Your task to perform on an android device: turn off notifications settings in the gmail app Image 0: 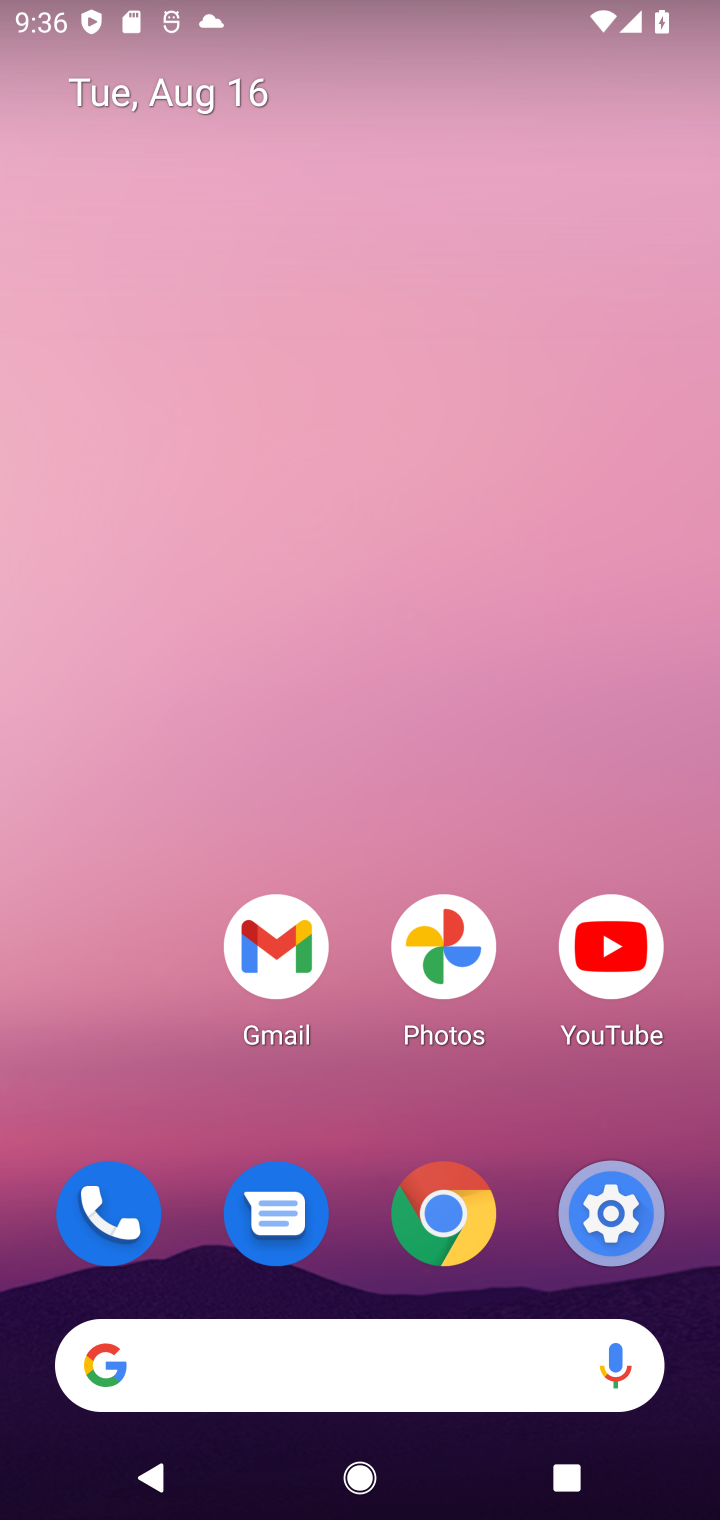
Step 0: drag from (332, 1108) to (404, 256)
Your task to perform on an android device: turn off notifications settings in the gmail app Image 1: 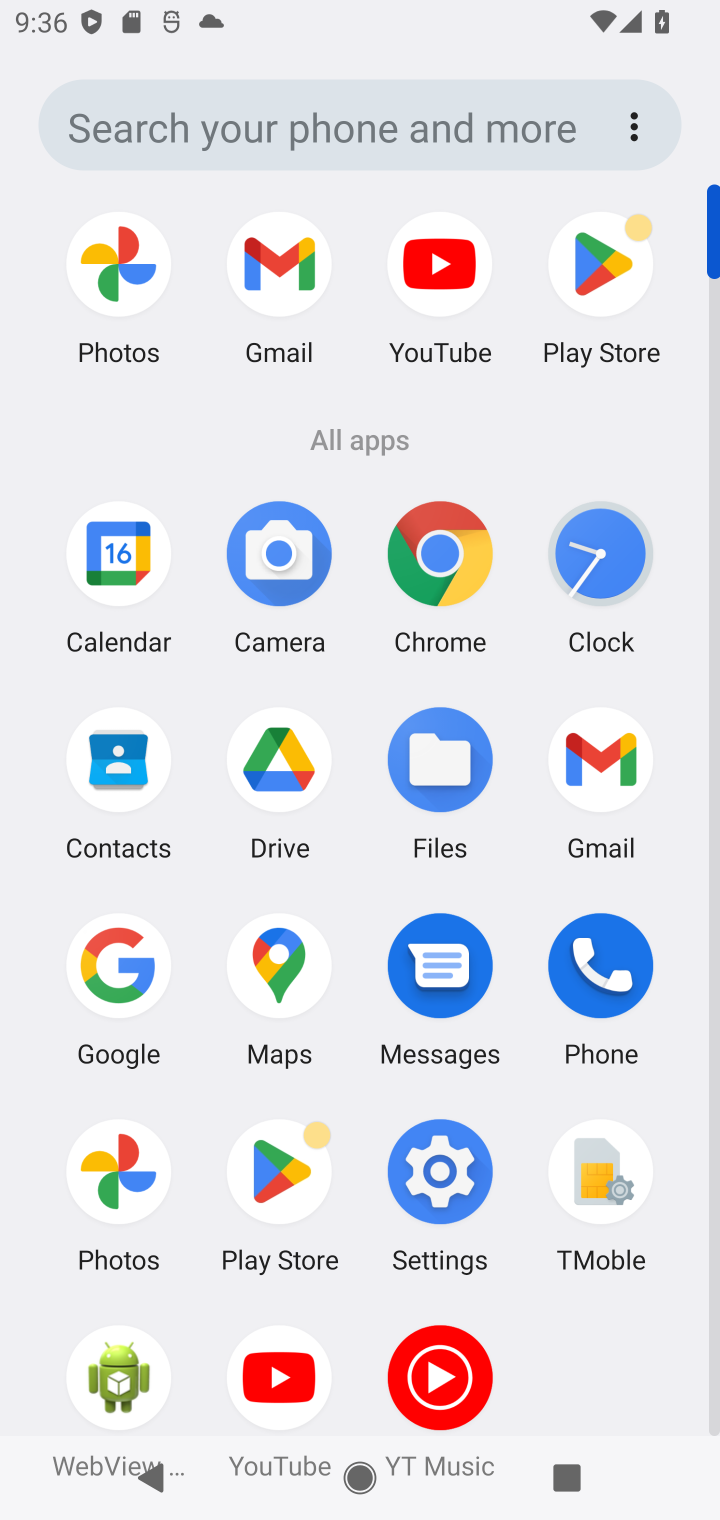
Step 1: click (584, 751)
Your task to perform on an android device: turn off notifications settings in the gmail app Image 2: 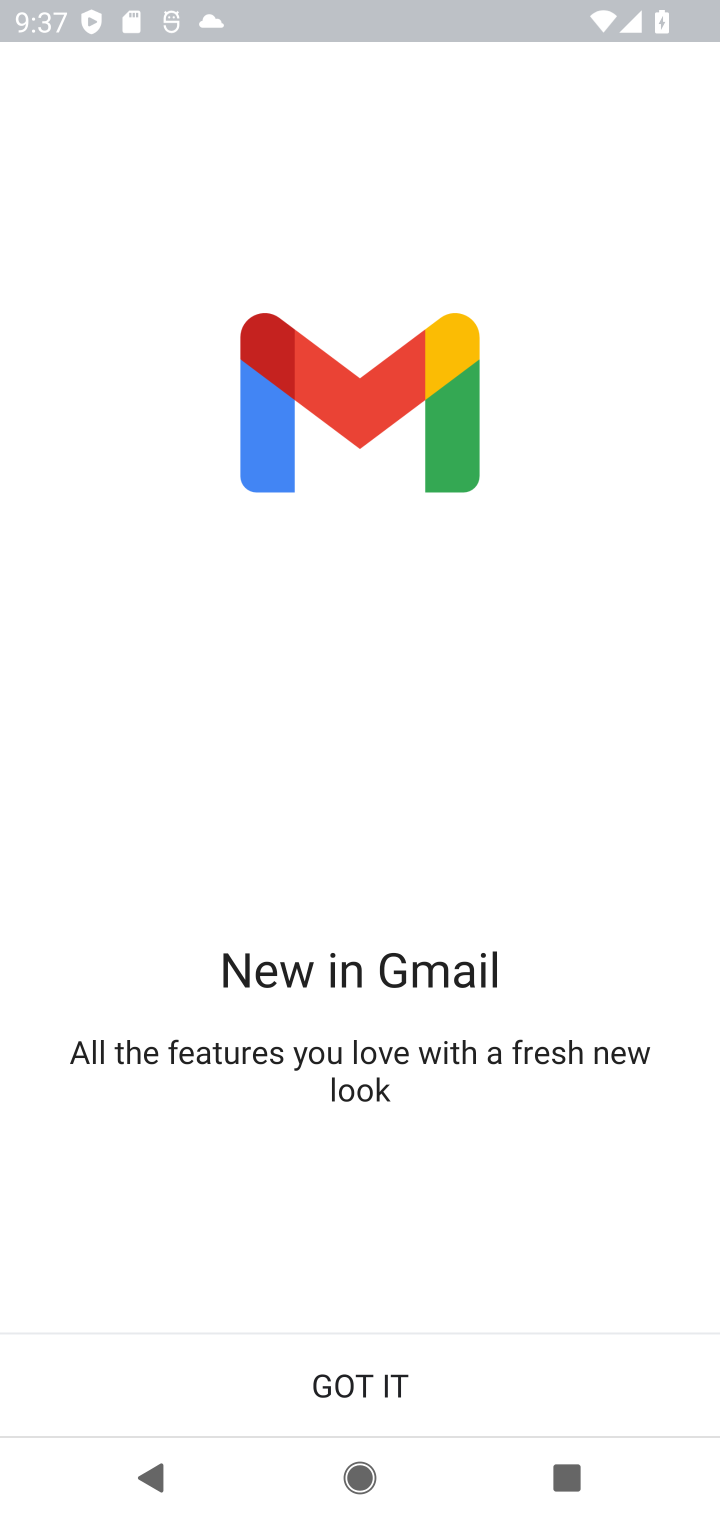
Step 2: click (380, 1375)
Your task to perform on an android device: turn off notifications settings in the gmail app Image 3: 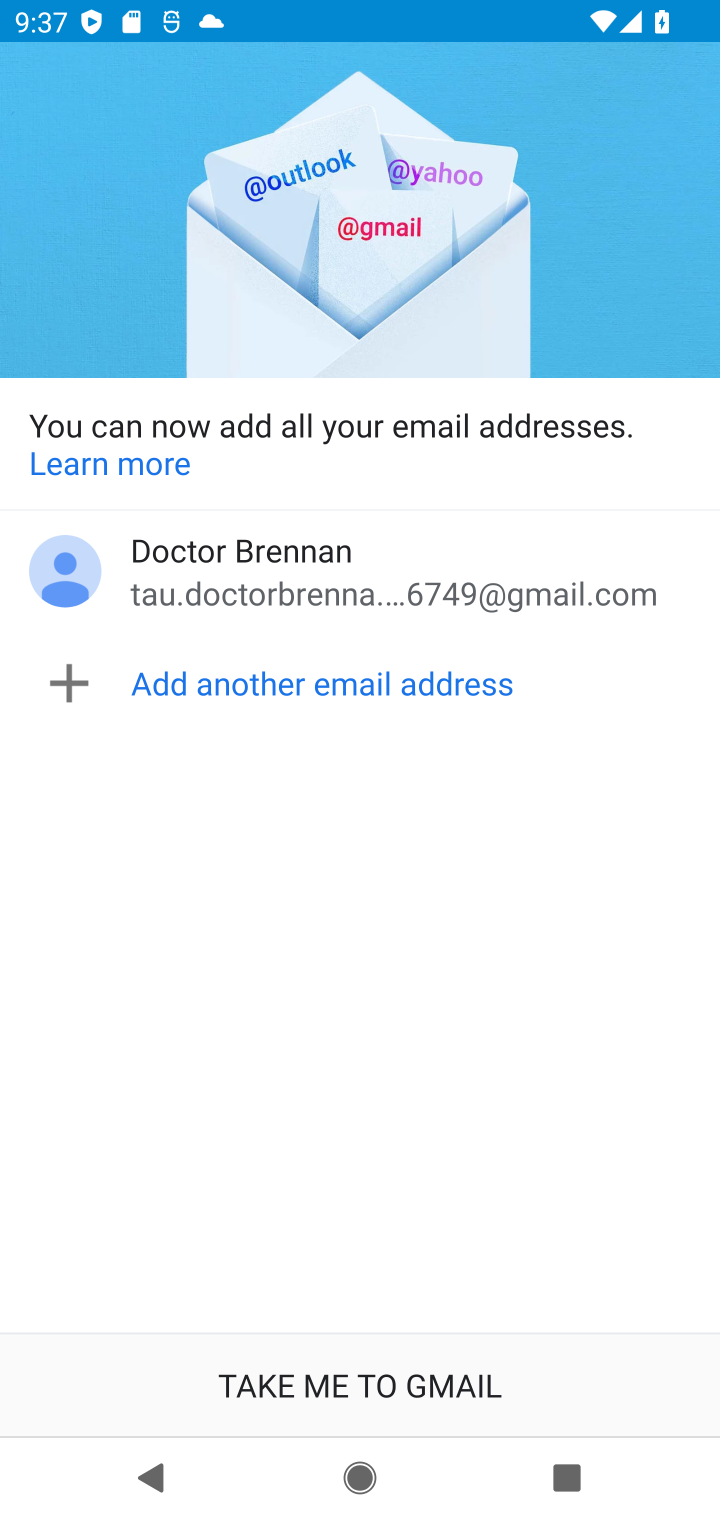
Step 3: click (380, 1375)
Your task to perform on an android device: turn off notifications settings in the gmail app Image 4: 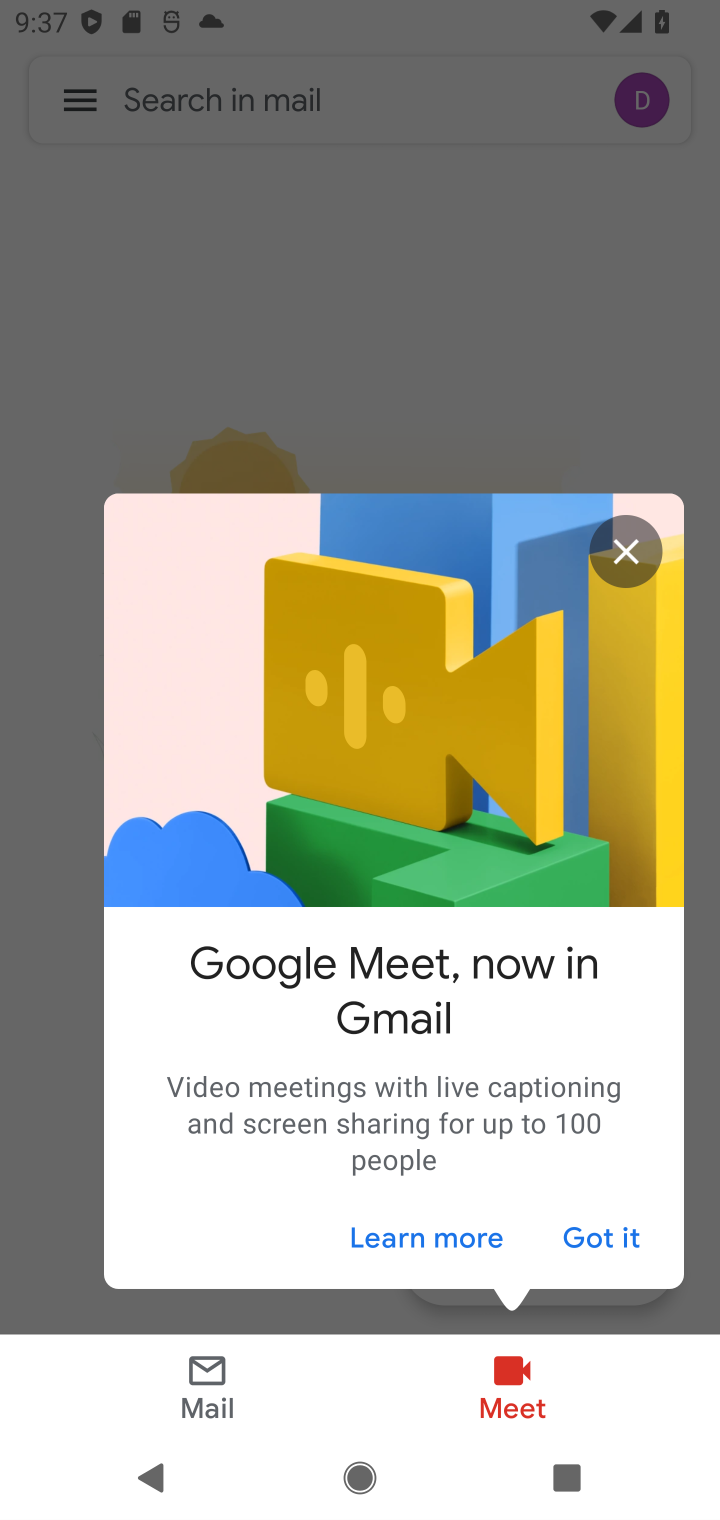
Step 4: click (597, 1216)
Your task to perform on an android device: turn off notifications settings in the gmail app Image 5: 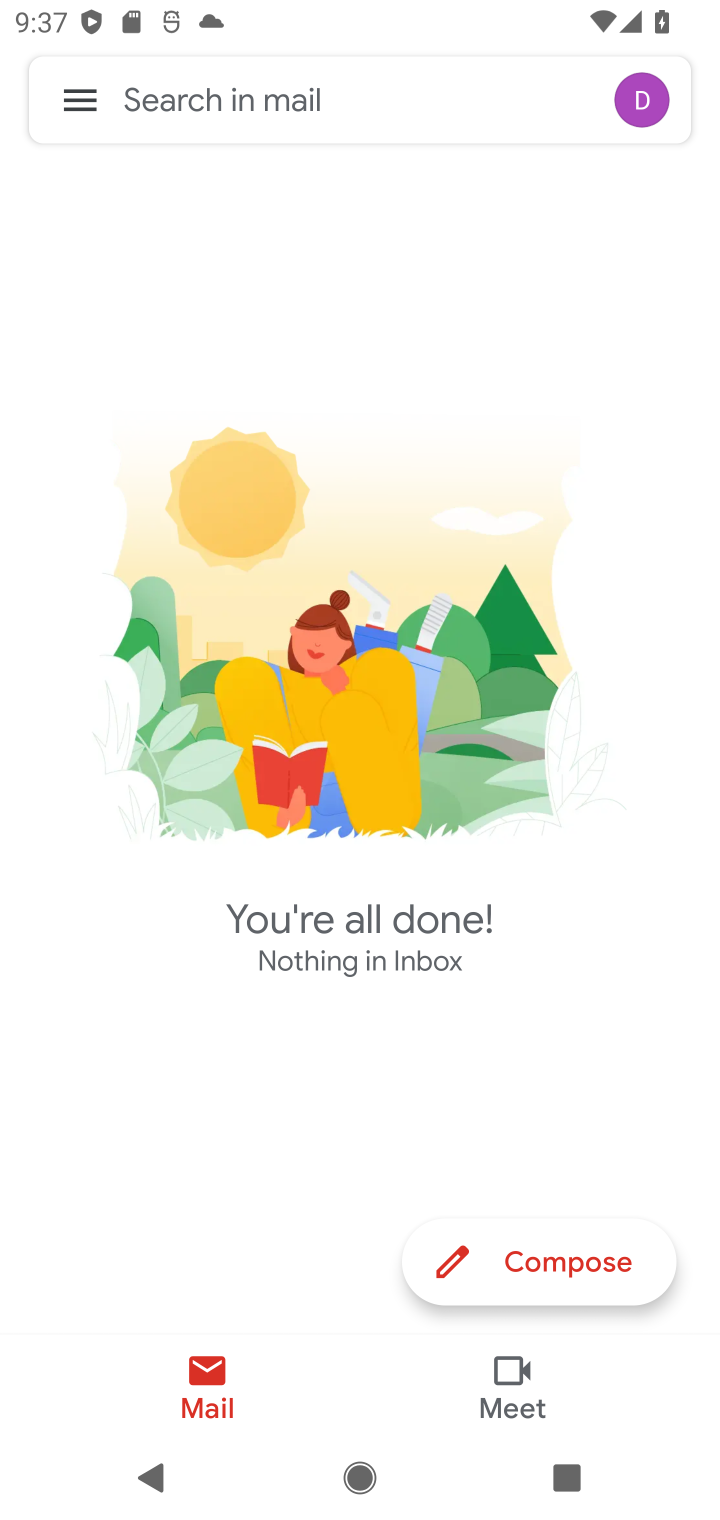
Step 5: click (74, 86)
Your task to perform on an android device: turn off notifications settings in the gmail app Image 6: 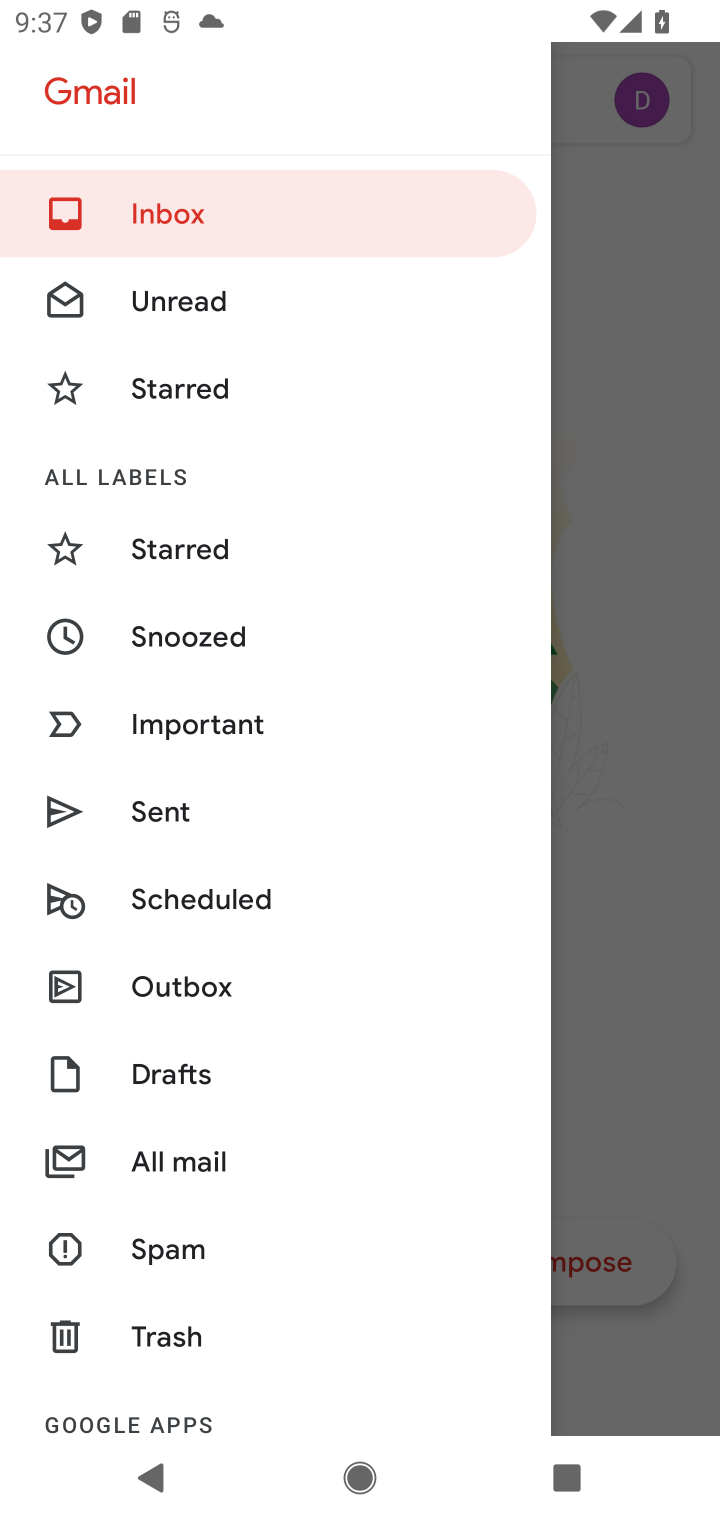
Step 6: drag from (237, 1247) to (340, 533)
Your task to perform on an android device: turn off notifications settings in the gmail app Image 7: 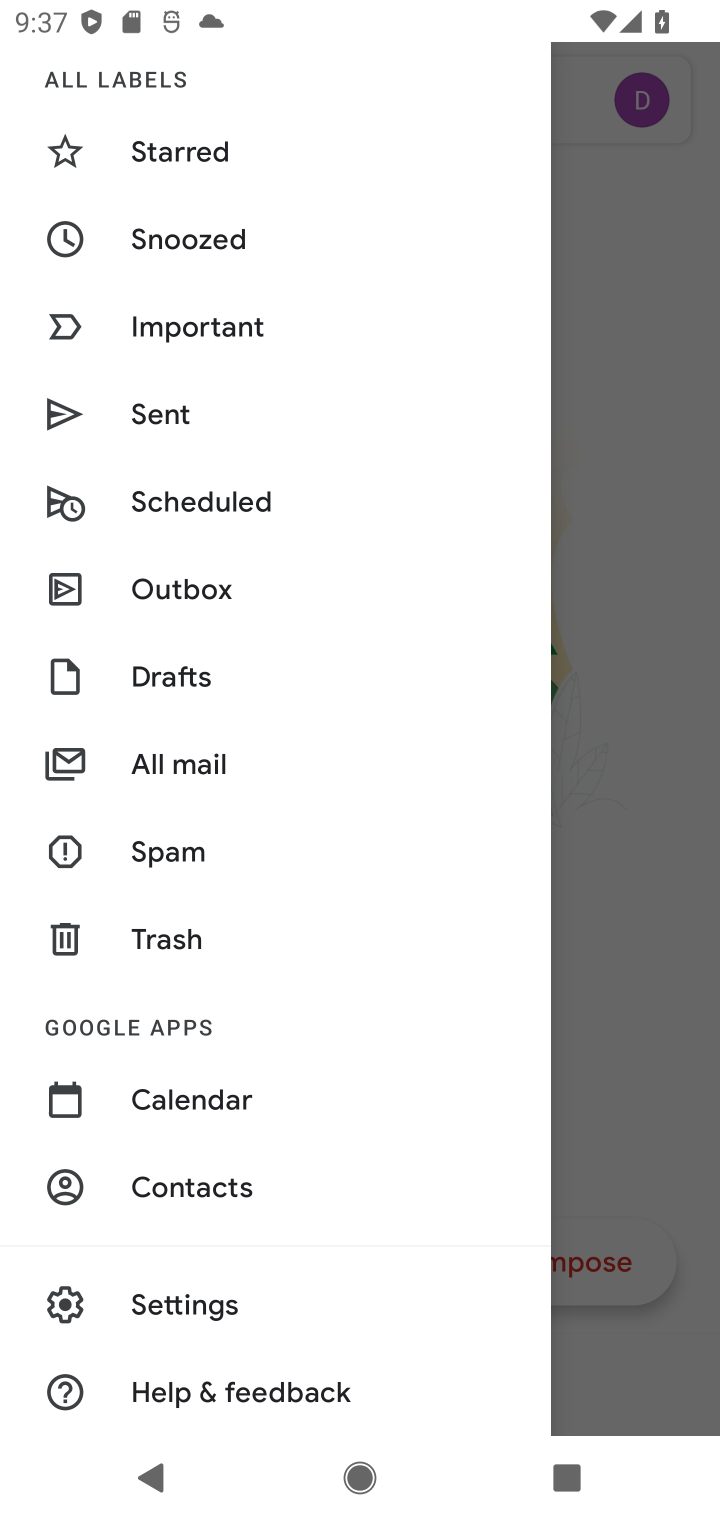
Step 7: click (204, 1288)
Your task to perform on an android device: turn off notifications settings in the gmail app Image 8: 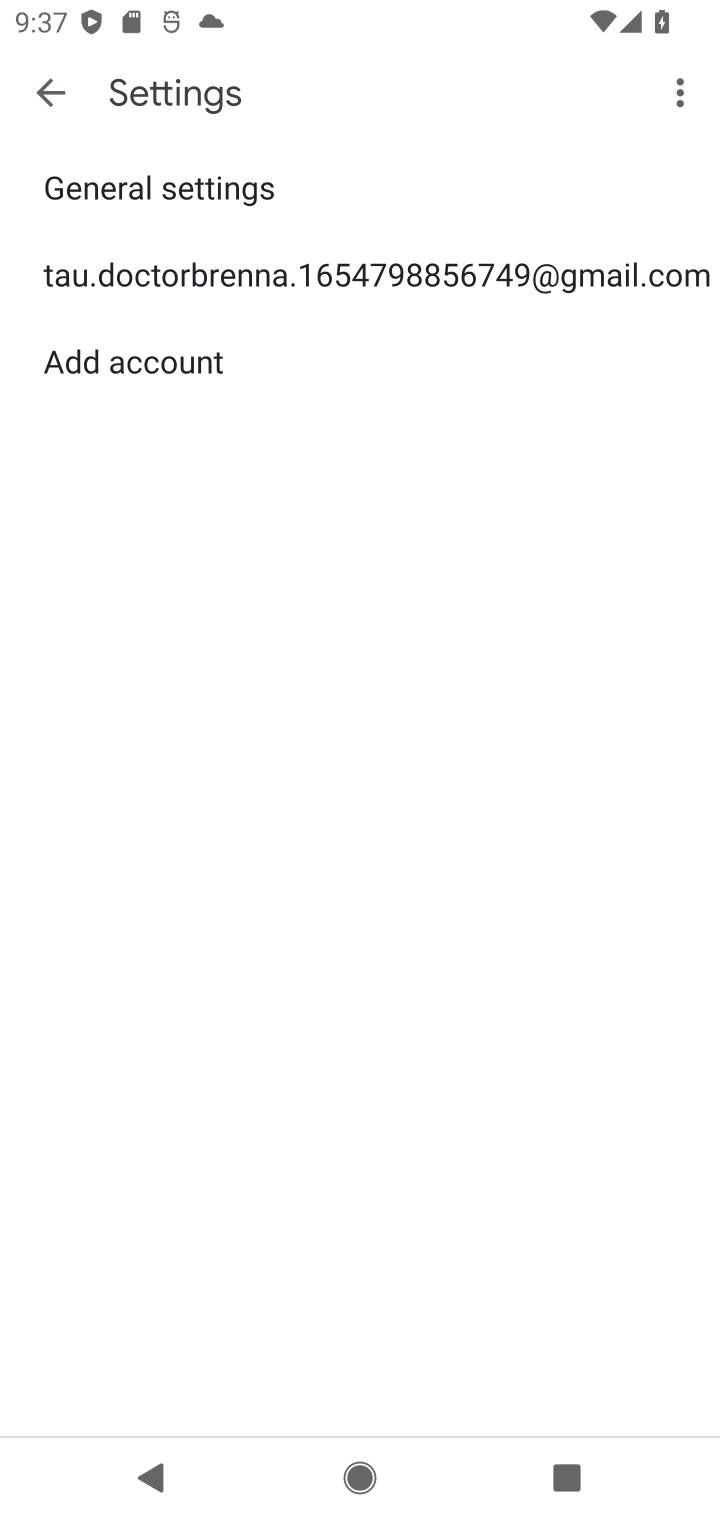
Step 8: click (236, 250)
Your task to perform on an android device: turn off notifications settings in the gmail app Image 9: 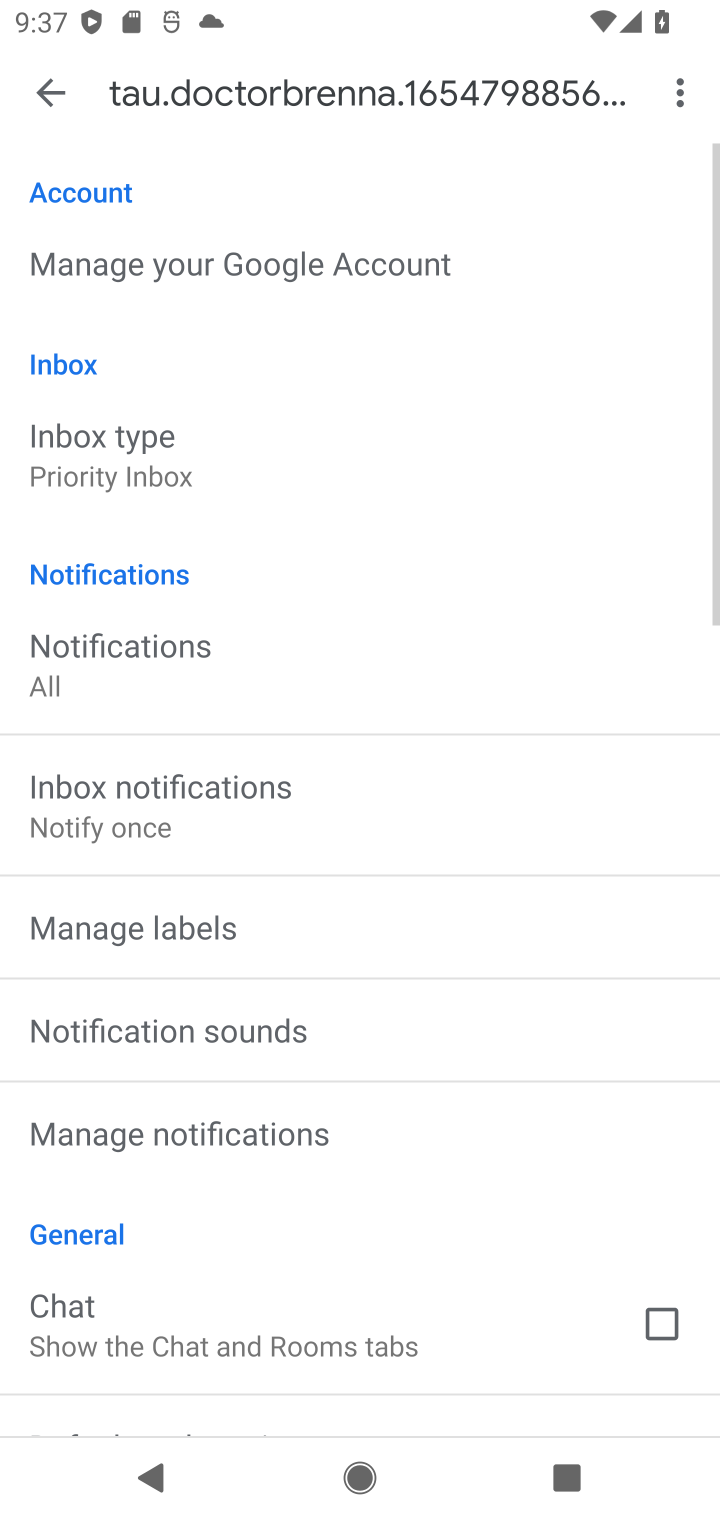
Step 9: click (216, 680)
Your task to perform on an android device: turn off notifications settings in the gmail app Image 10: 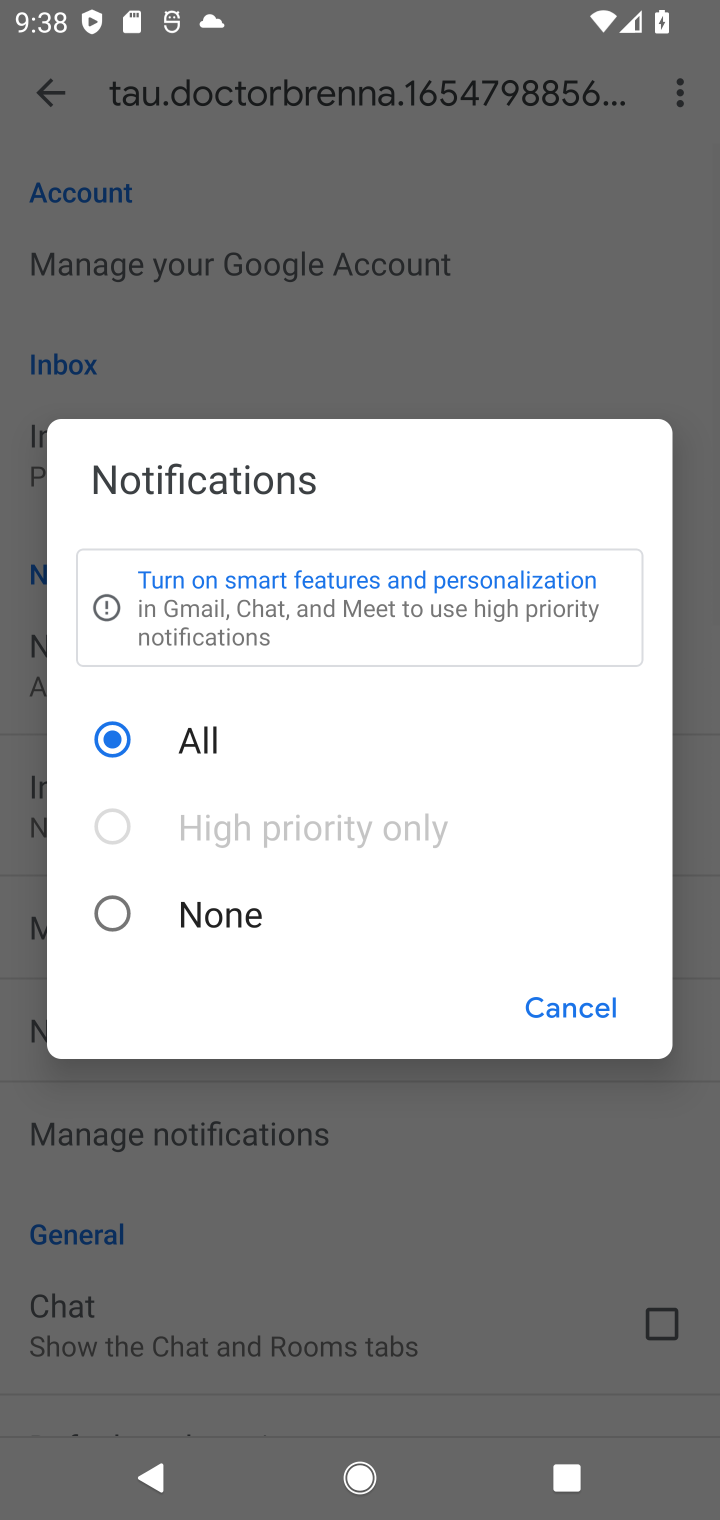
Step 10: click (210, 895)
Your task to perform on an android device: turn off notifications settings in the gmail app Image 11: 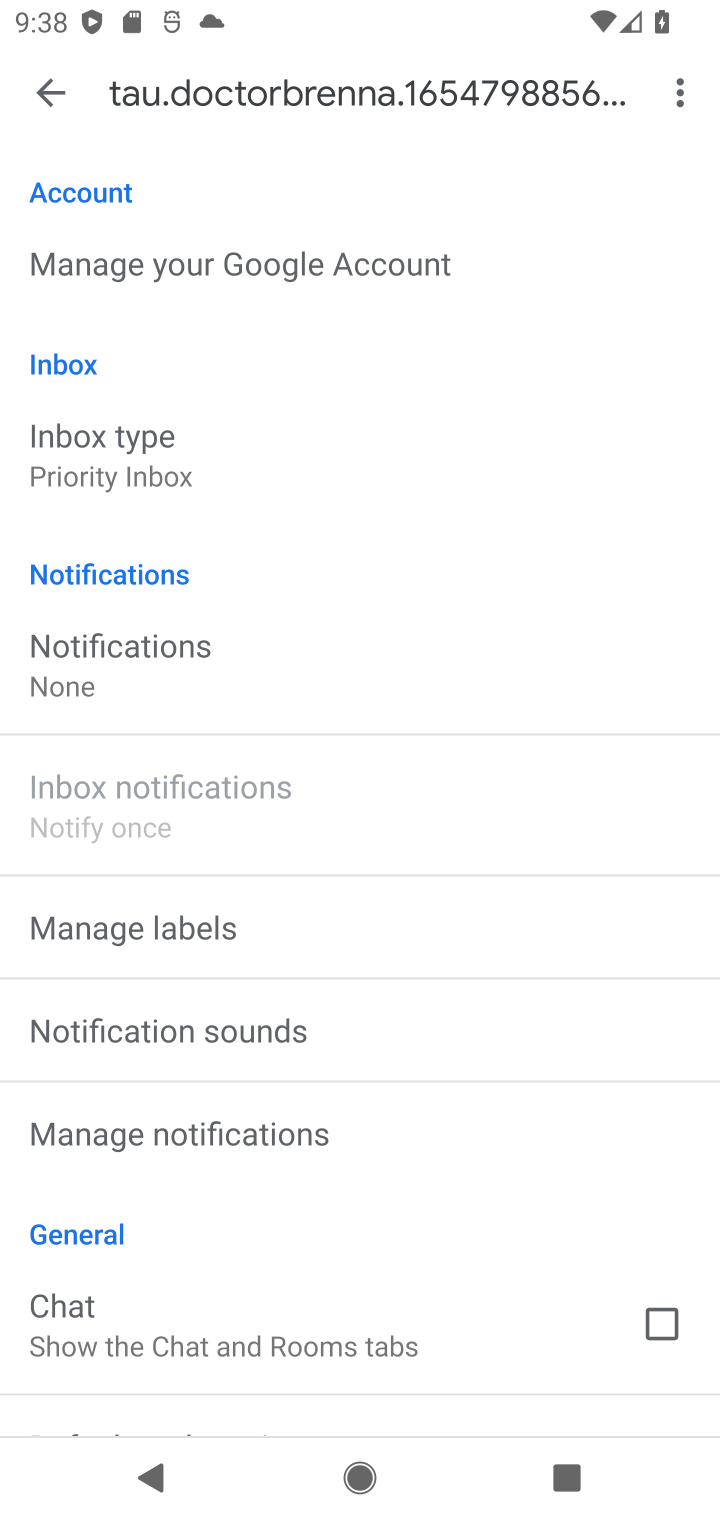
Step 11: task complete